Your task to perform on an android device: stop showing notifications on the lock screen Image 0: 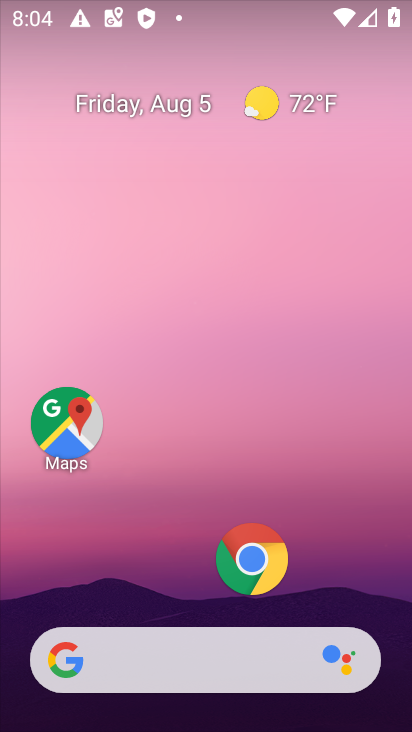
Step 0: drag from (146, 525) to (220, 29)
Your task to perform on an android device: stop showing notifications on the lock screen Image 1: 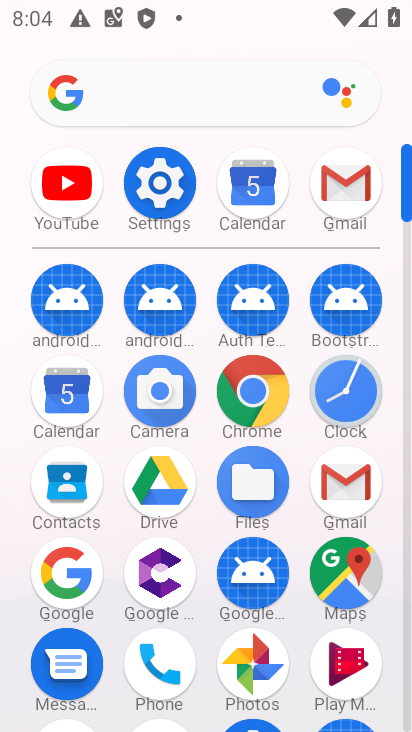
Step 1: click (164, 203)
Your task to perform on an android device: stop showing notifications on the lock screen Image 2: 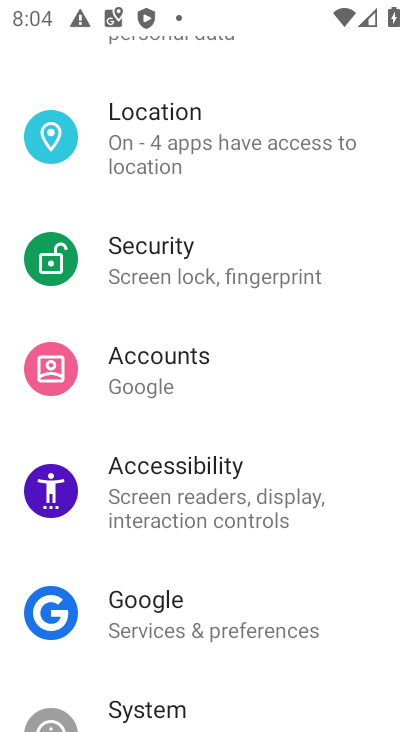
Step 2: drag from (252, 153) to (206, 635)
Your task to perform on an android device: stop showing notifications on the lock screen Image 3: 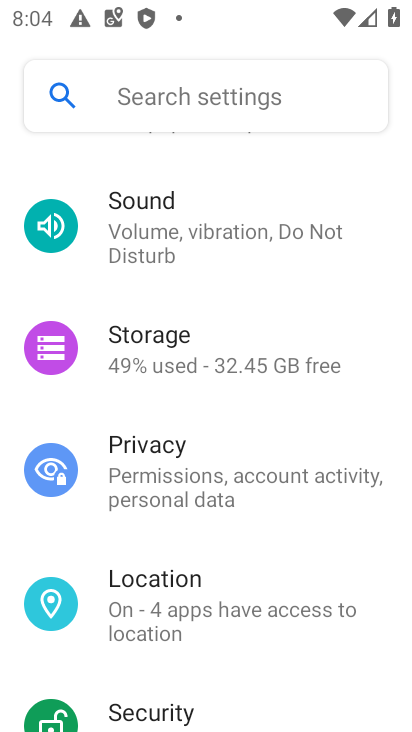
Step 3: drag from (235, 363) to (236, 679)
Your task to perform on an android device: stop showing notifications on the lock screen Image 4: 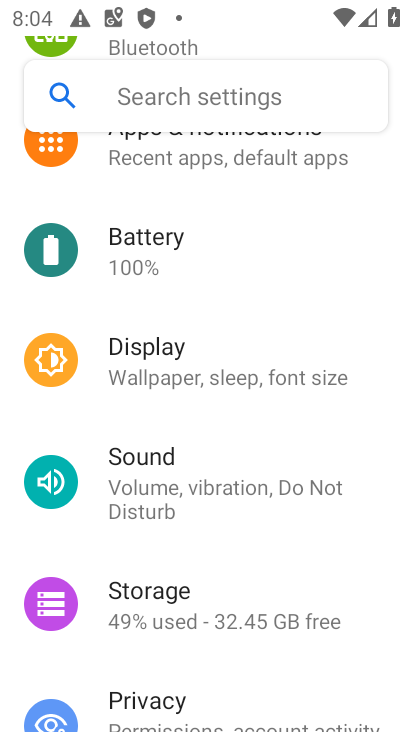
Step 4: drag from (176, 270) to (172, 460)
Your task to perform on an android device: stop showing notifications on the lock screen Image 5: 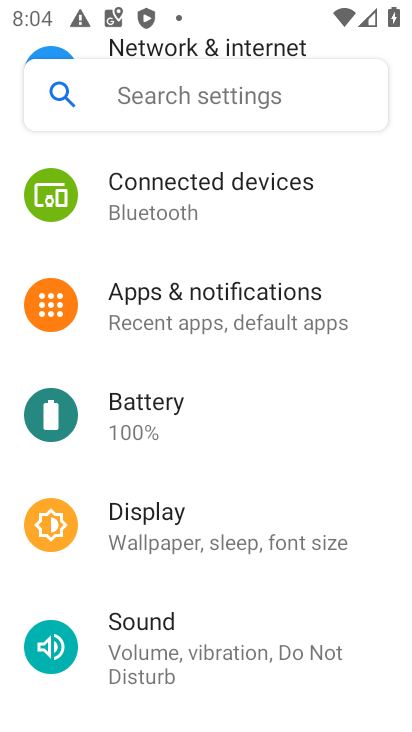
Step 5: drag from (221, 256) to (193, 637)
Your task to perform on an android device: stop showing notifications on the lock screen Image 6: 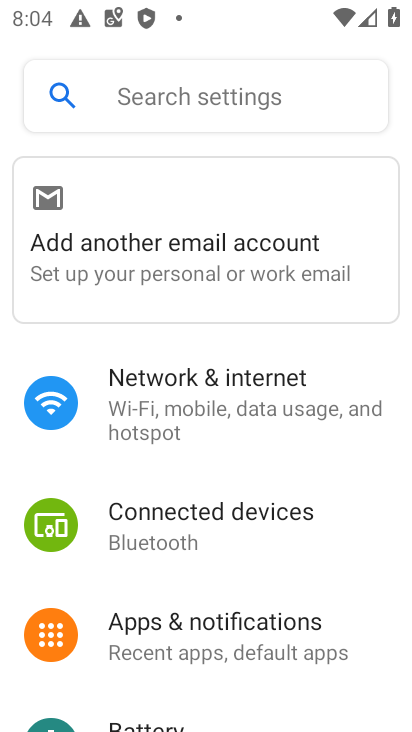
Step 6: click (189, 631)
Your task to perform on an android device: stop showing notifications on the lock screen Image 7: 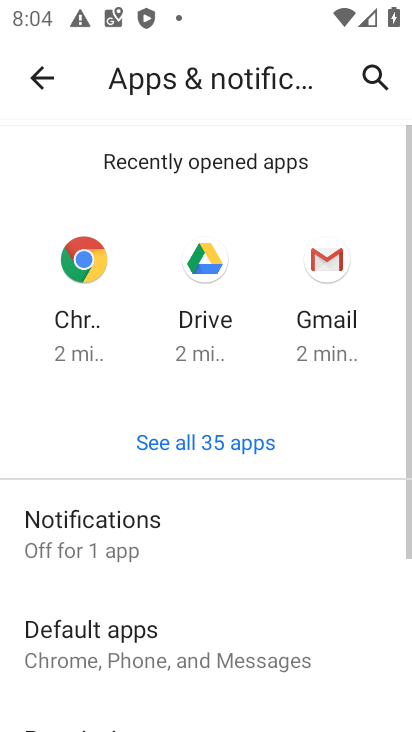
Step 7: click (151, 550)
Your task to perform on an android device: stop showing notifications on the lock screen Image 8: 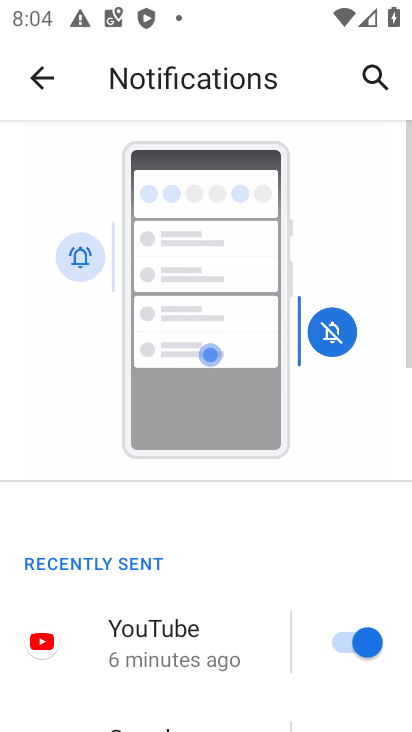
Step 8: drag from (157, 630) to (205, 339)
Your task to perform on an android device: stop showing notifications on the lock screen Image 9: 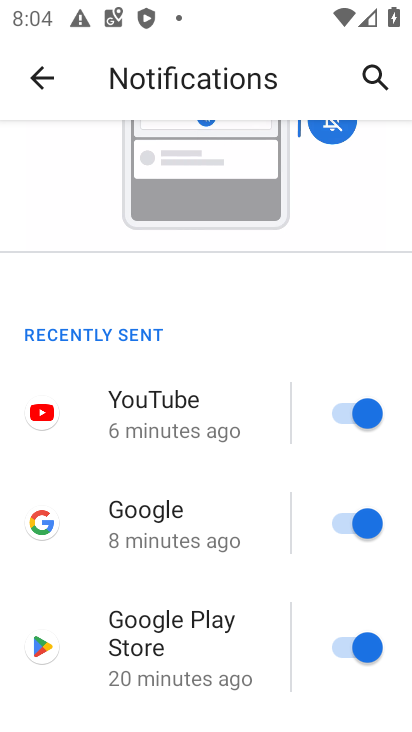
Step 9: drag from (159, 622) to (224, 380)
Your task to perform on an android device: stop showing notifications on the lock screen Image 10: 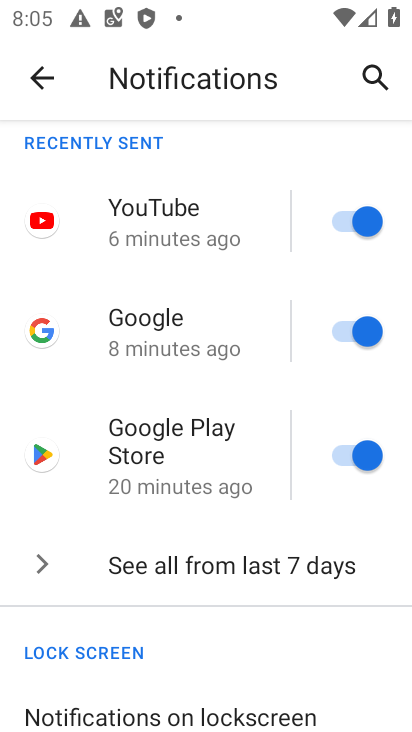
Step 10: drag from (211, 635) to (246, 514)
Your task to perform on an android device: stop showing notifications on the lock screen Image 11: 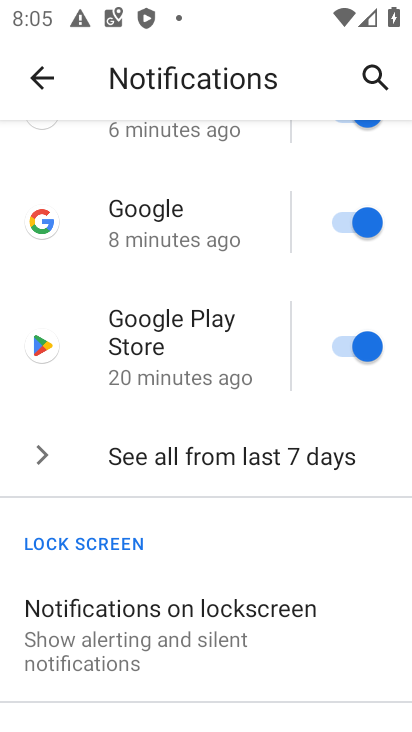
Step 11: click (211, 656)
Your task to perform on an android device: stop showing notifications on the lock screen Image 12: 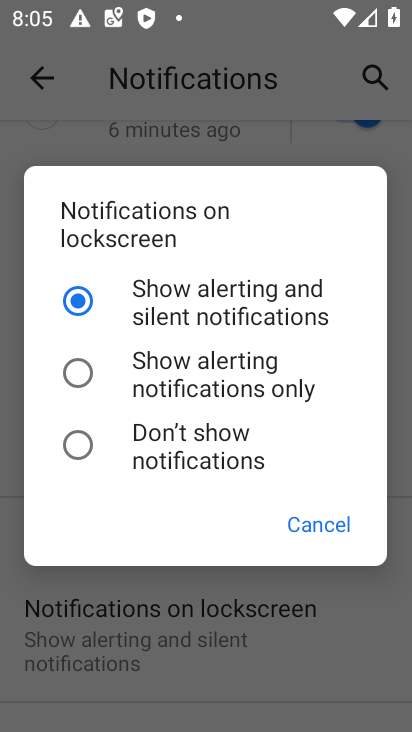
Step 12: click (199, 479)
Your task to perform on an android device: stop showing notifications on the lock screen Image 13: 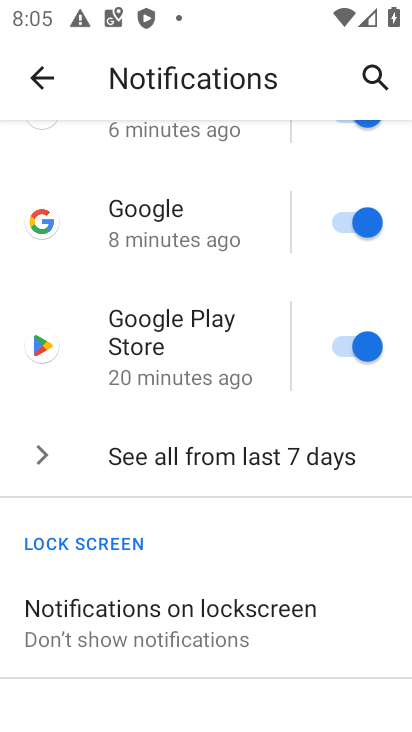
Step 13: task complete